Your task to perform on an android device: Open Amazon Image 0: 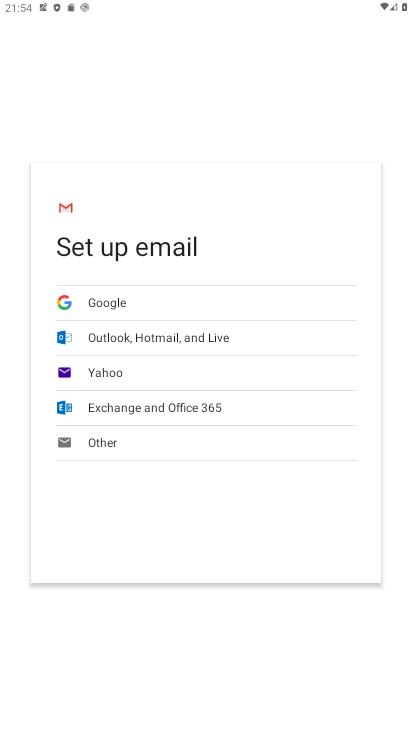
Step 0: press home button
Your task to perform on an android device: Open Amazon Image 1: 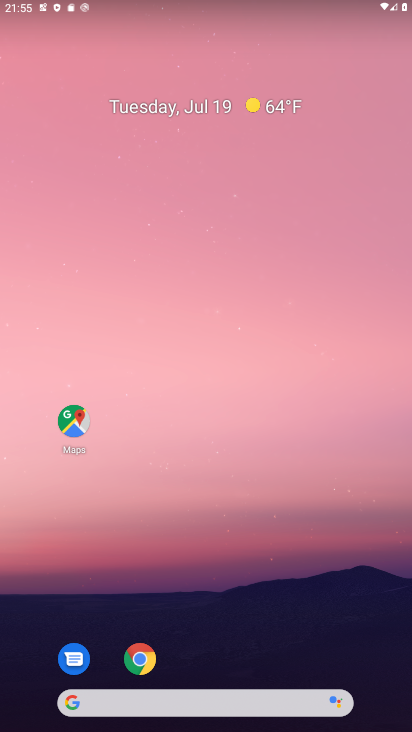
Step 1: click (133, 664)
Your task to perform on an android device: Open Amazon Image 2: 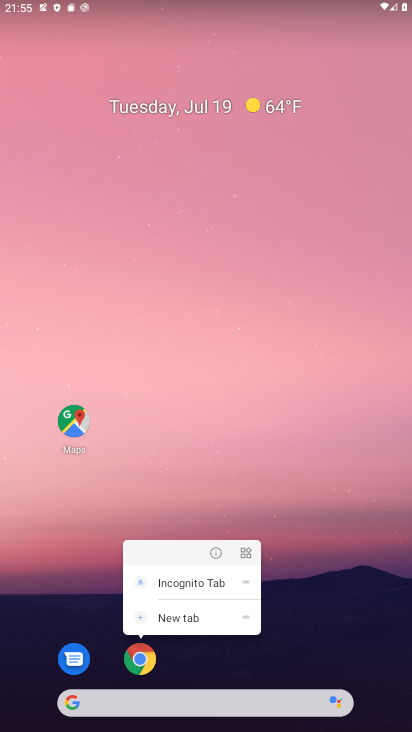
Step 2: click (137, 652)
Your task to perform on an android device: Open Amazon Image 3: 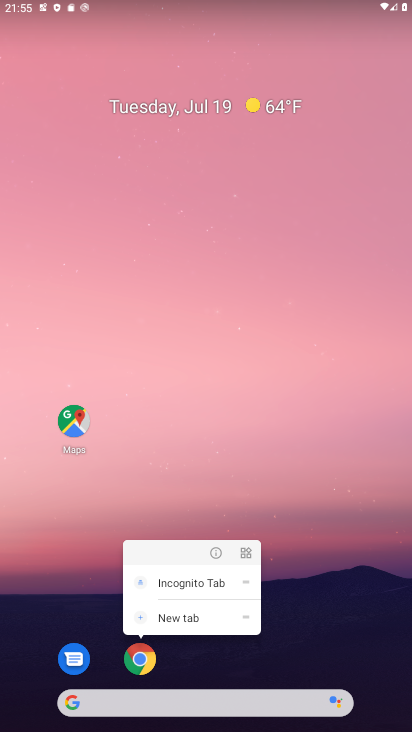
Step 3: click (138, 653)
Your task to perform on an android device: Open Amazon Image 4: 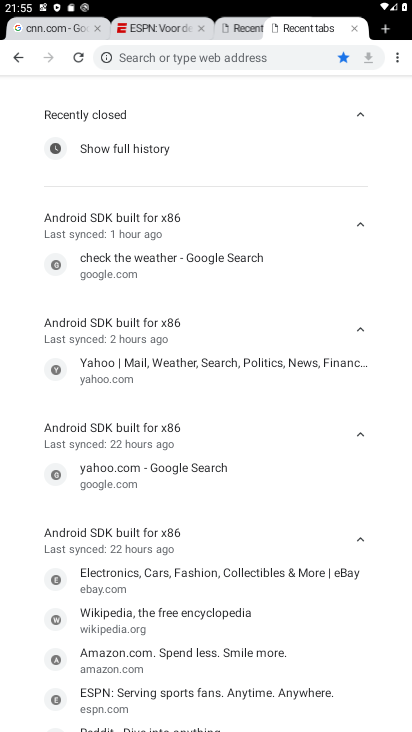
Step 4: click (379, 33)
Your task to perform on an android device: Open Amazon Image 5: 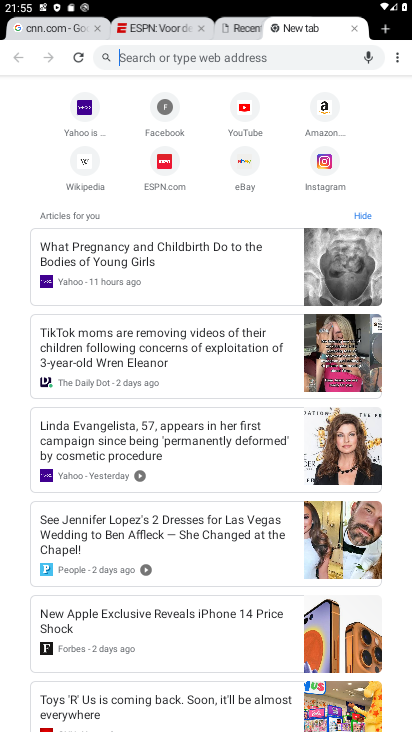
Step 5: click (314, 111)
Your task to perform on an android device: Open Amazon Image 6: 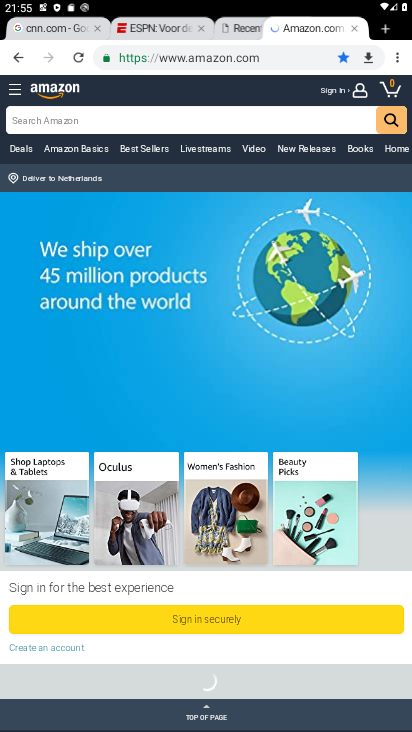
Step 6: task complete